Your task to perform on an android device: Open ESPN.com Image 0: 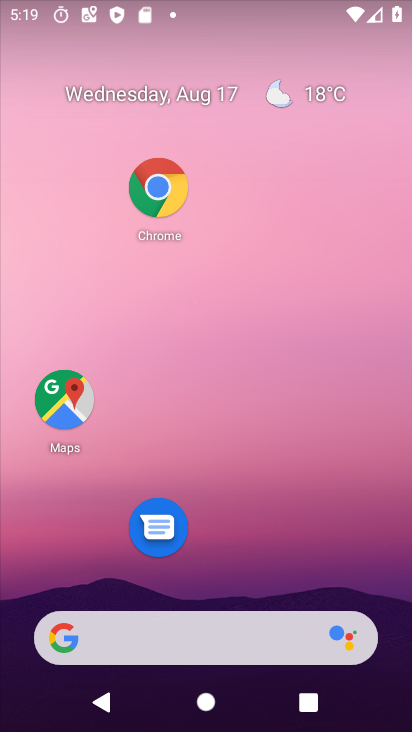
Step 0: click (158, 197)
Your task to perform on an android device: Open ESPN.com Image 1: 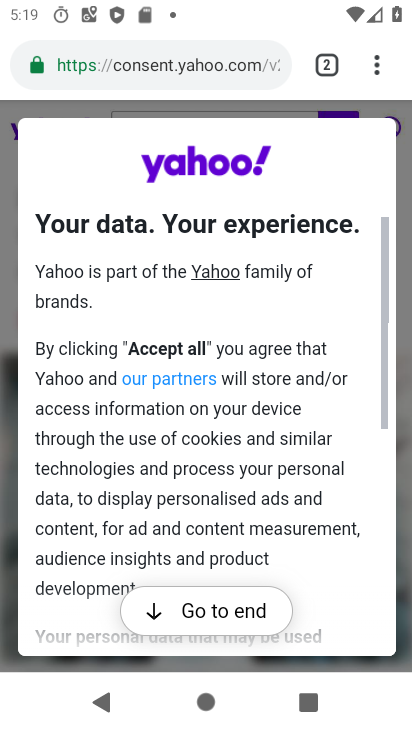
Step 1: click (325, 66)
Your task to perform on an android device: Open ESPN.com Image 2: 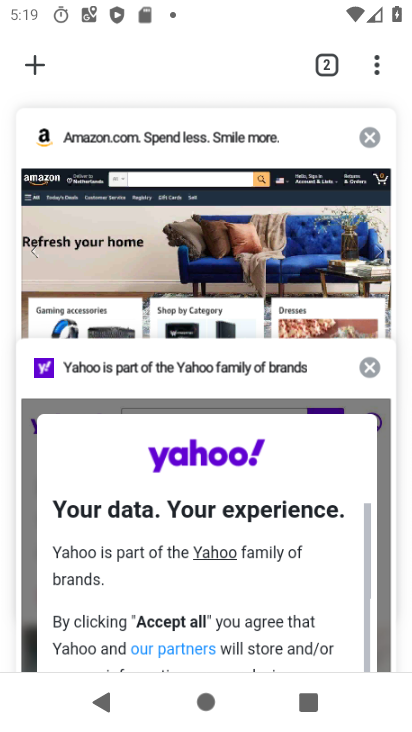
Step 2: click (20, 56)
Your task to perform on an android device: Open ESPN.com Image 3: 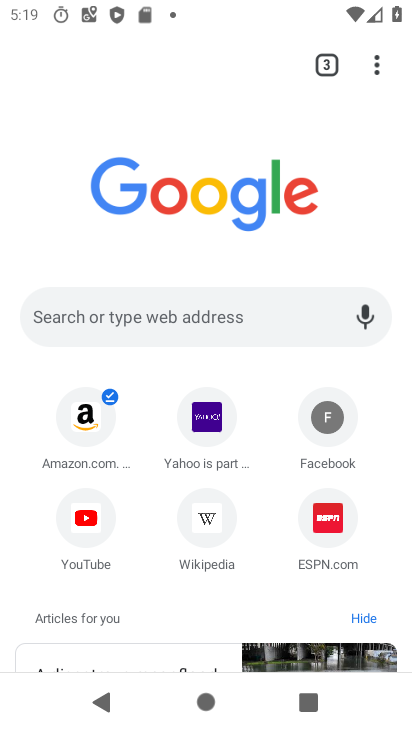
Step 3: click (324, 518)
Your task to perform on an android device: Open ESPN.com Image 4: 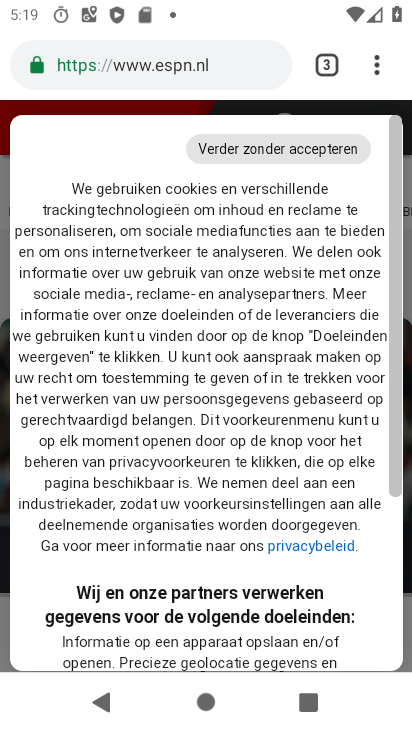
Step 4: task complete